Your task to perform on an android device: Show me productivity apps on the Play Store Image 0: 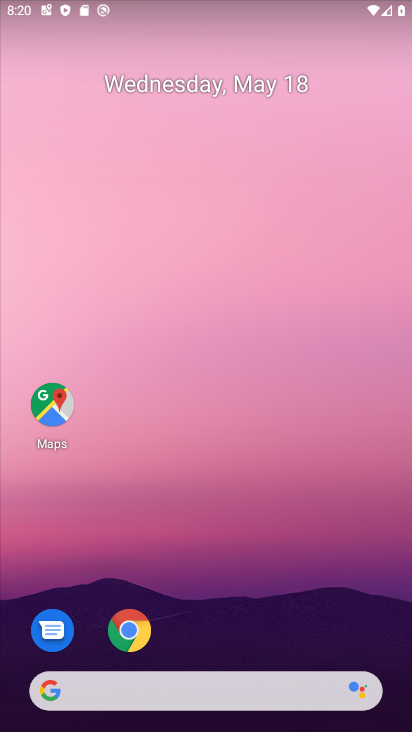
Step 0: press home button
Your task to perform on an android device: Show me productivity apps on the Play Store Image 1: 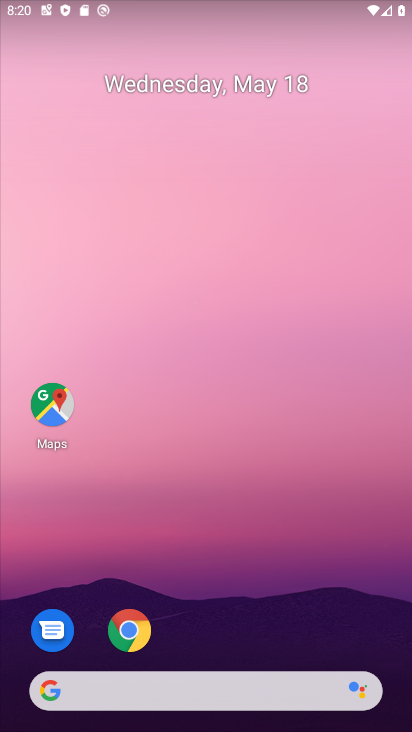
Step 1: drag from (138, 705) to (337, 128)
Your task to perform on an android device: Show me productivity apps on the Play Store Image 2: 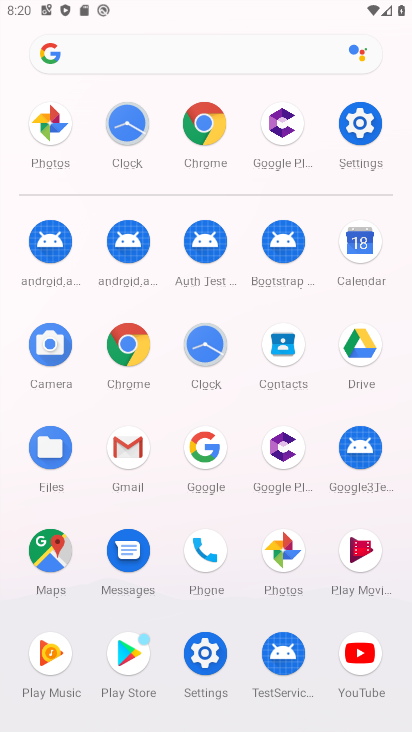
Step 2: click (130, 660)
Your task to perform on an android device: Show me productivity apps on the Play Store Image 3: 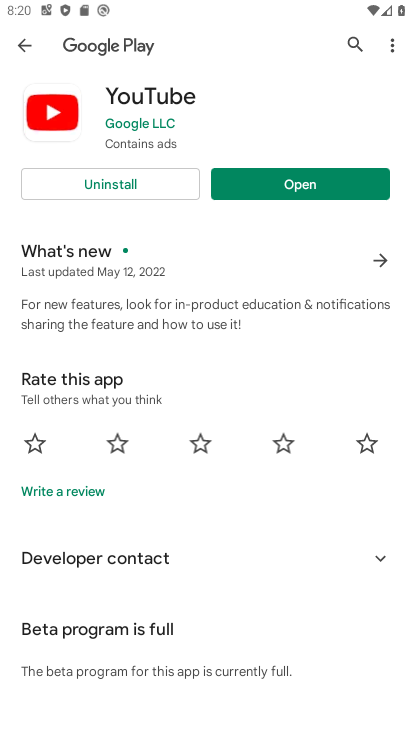
Step 3: click (25, 38)
Your task to perform on an android device: Show me productivity apps on the Play Store Image 4: 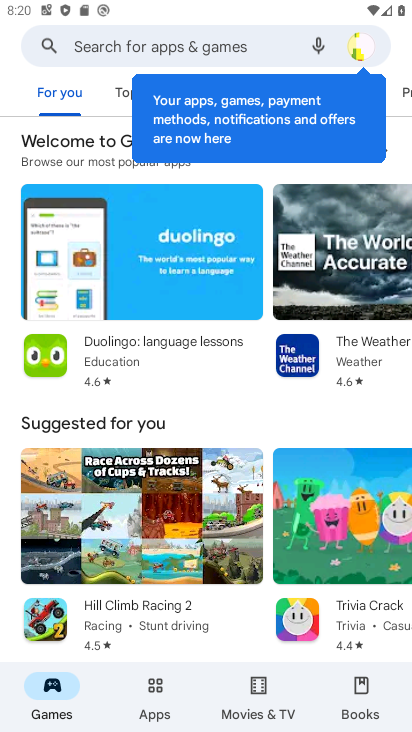
Step 4: click (154, 686)
Your task to perform on an android device: Show me productivity apps on the Play Store Image 5: 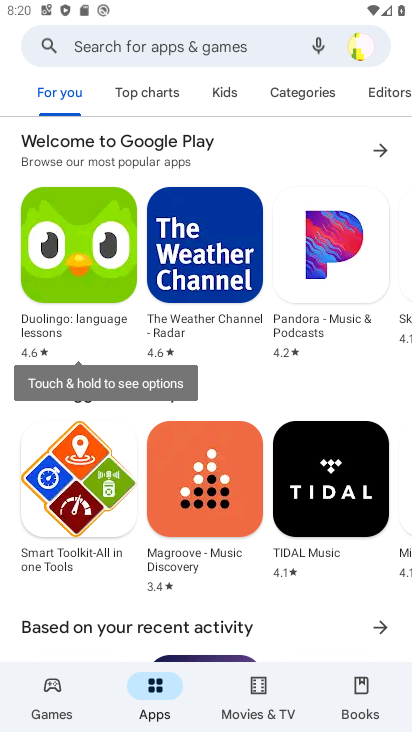
Step 5: click (296, 92)
Your task to perform on an android device: Show me productivity apps on the Play Store Image 6: 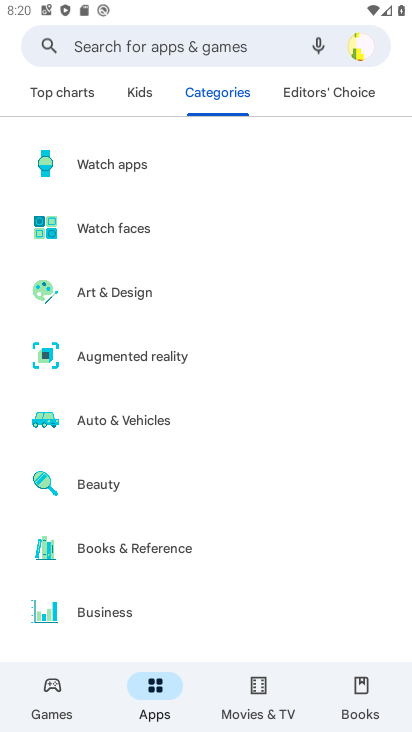
Step 6: drag from (212, 563) to (380, 192)
Your task to perform on an android device: Show me productivity apps on the Play Store Image 7: 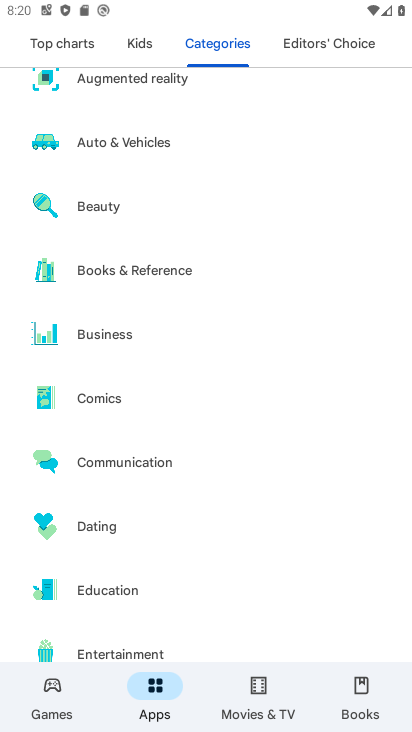
Step 7: drag from (239, 570) to (375, 3)
Your task to perform on an android device: Show me productivity apps on the Play Store Image 8: 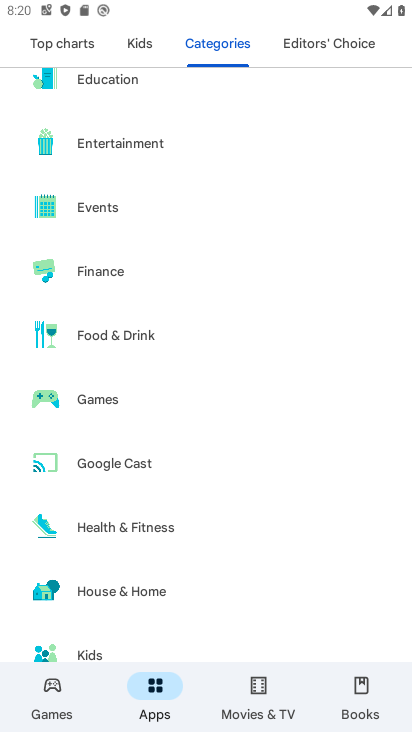
Step 8: drag from (230, 579) to (368, 36)
Your task to perform on an android device: Show me productivity apps on the Play Store Image 9: 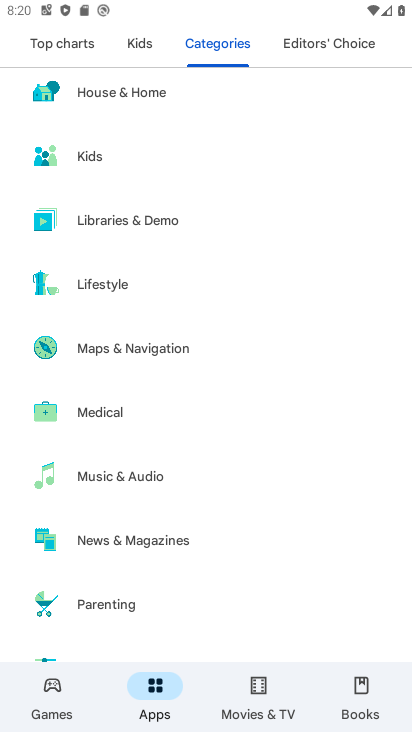
Step 9: drag from (233, 606) to (340, 146)
Your task to perform on an android device: Show me productivity apps on the Play Store Image 10: 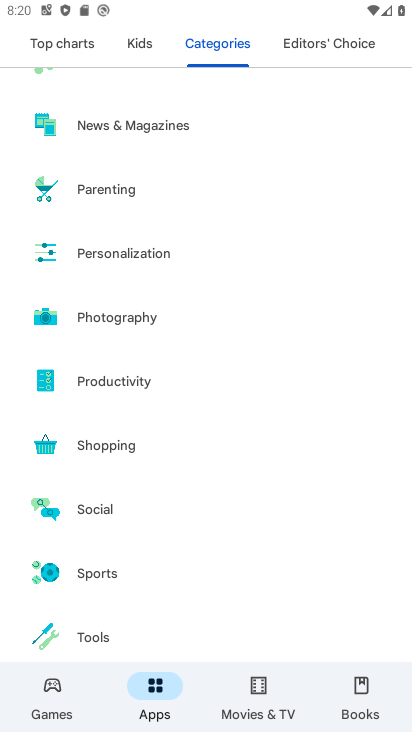
Step 10: click (131, 375)
Your task to perform on an android device: Show me productivity apps on the Play Store Image 11: 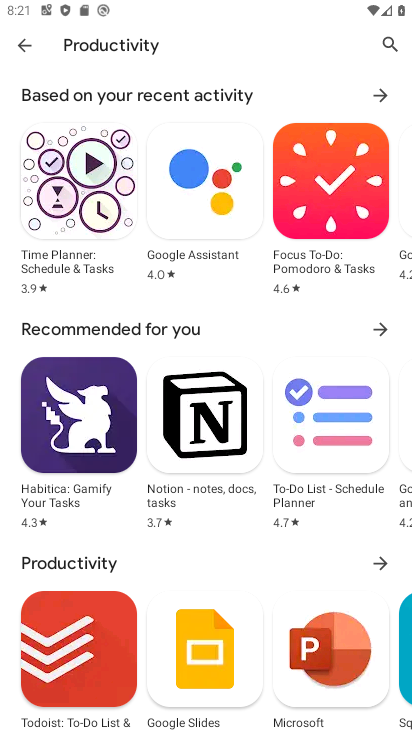
Step 11: task complete